Your task to perform on an android device: Toggle the flashlight Image 0: 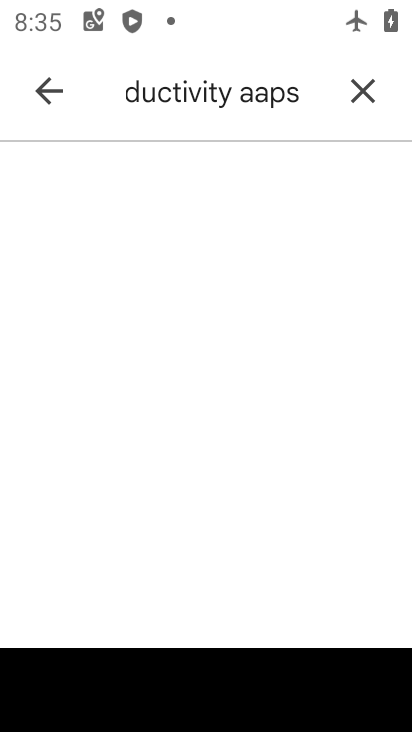
Step 0: press home button
Your task to perform on an android device: Toggle the flashlight Image 1: 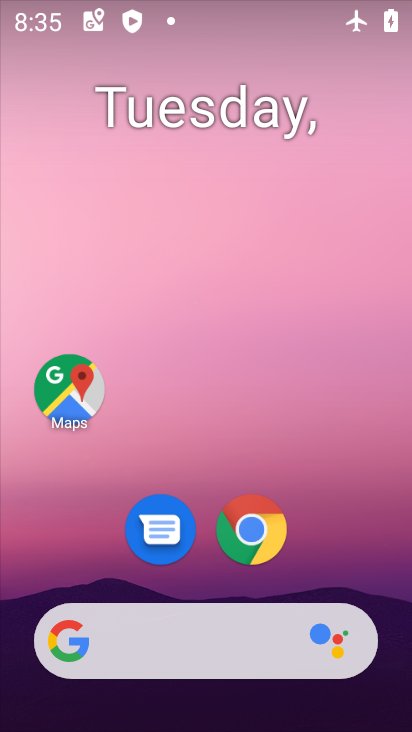
Step 1: task complete